Your task to perform on an android device: Show me productivity apps on the Play Store Image 0: 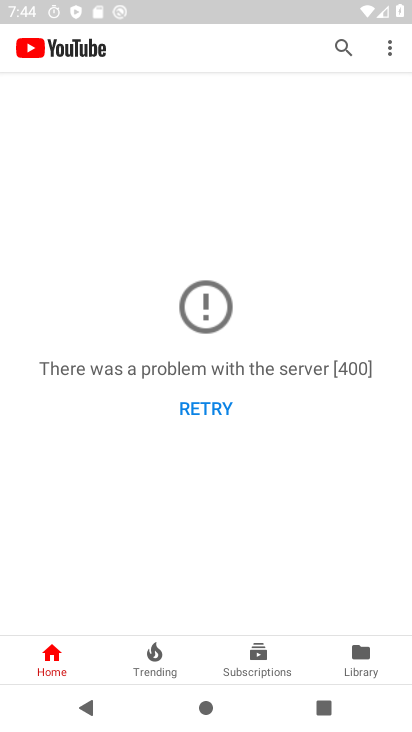
Step 0: press home button
Your task to perform on an android device: Show me productivity apps on the Play Store Image 1: 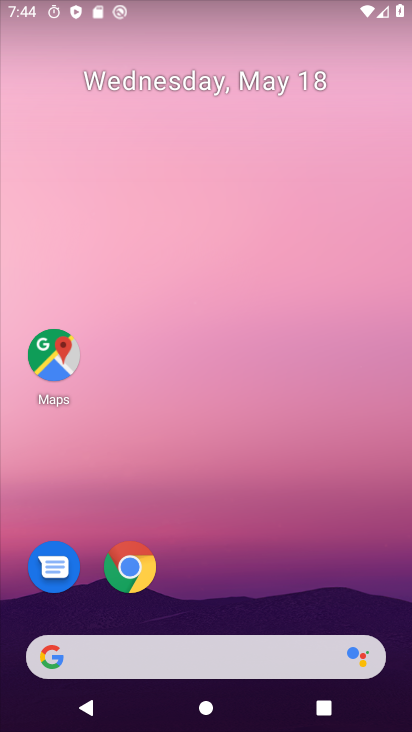
Step 1: drag from (182, 612) to (244, 20)
Your task to perform on an android device: Show me productivity apps on the Play Store Image 2: 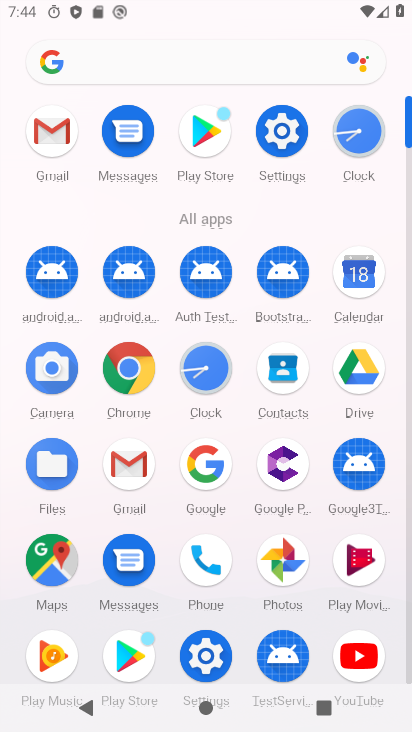
Step 2: click (137, 669)
Your task to perform on an android device: Show me productivity apps on the Play Store Image 3: 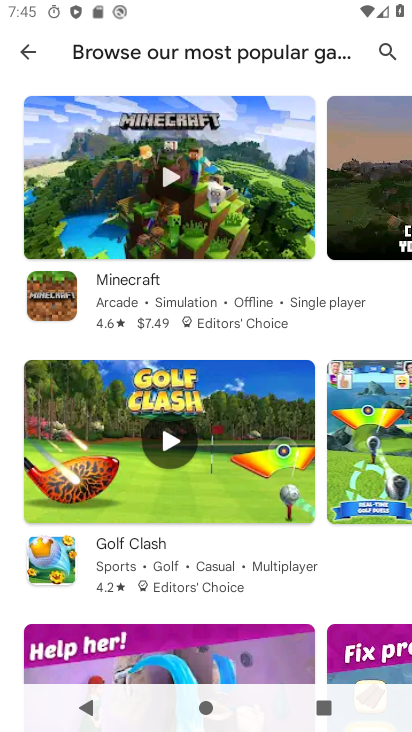
Step 3: click (13, 58)
Your task to perform on an android device: Show me productivity apps on the Play Store Image 4: 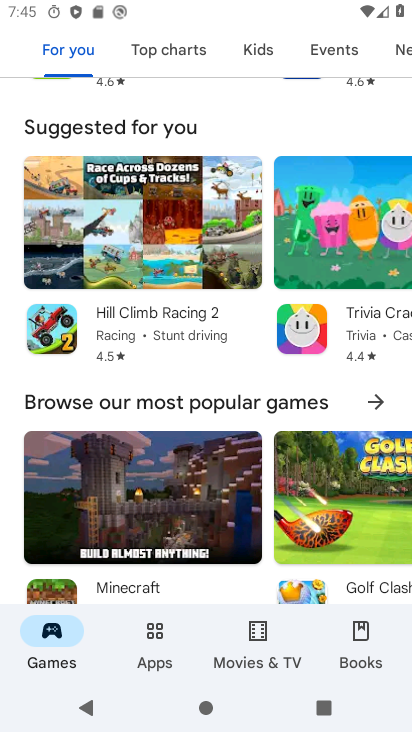
Step 4: click (152, 641)
Your task to perform on an android device: Show me productivity apps on the Play Store Image 5: 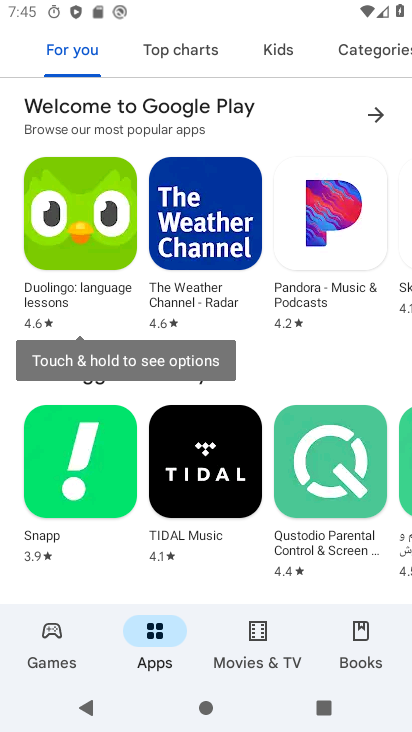
Step 5: click (343, 62)
Your task to perform on an android device: Show me productivity apps on the Play Store Image 6: 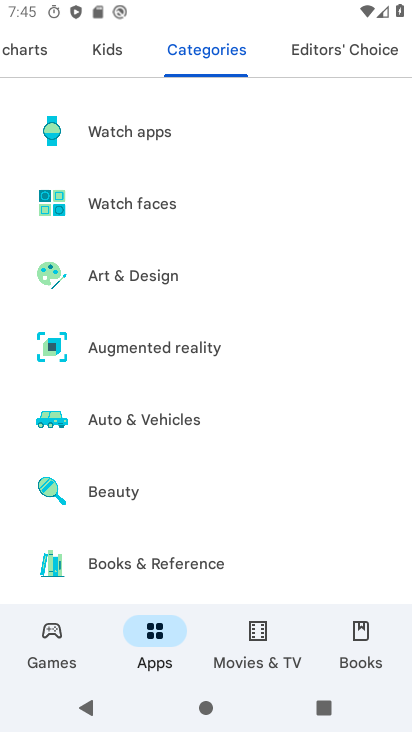
Step 6: drag from (268, 548) to (203, 38)
Your task to perform on an android device: Show me productivity apps on the Play Store Image 7: 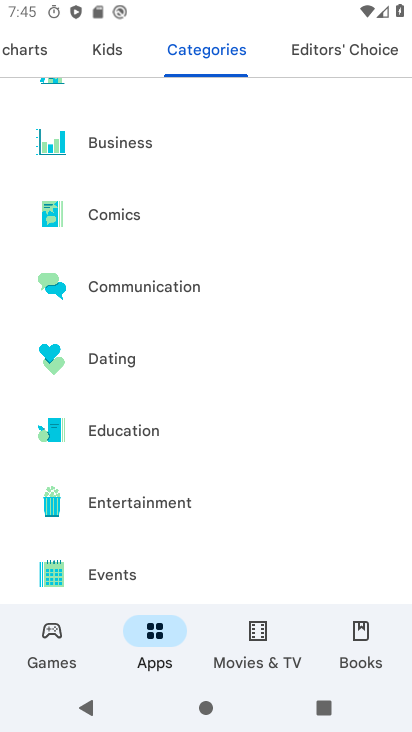
Step 7: drag from (172, 482) to (168, 81)
Your task to perform on an android device: Show me productivity apps on the Play Store Image 8: 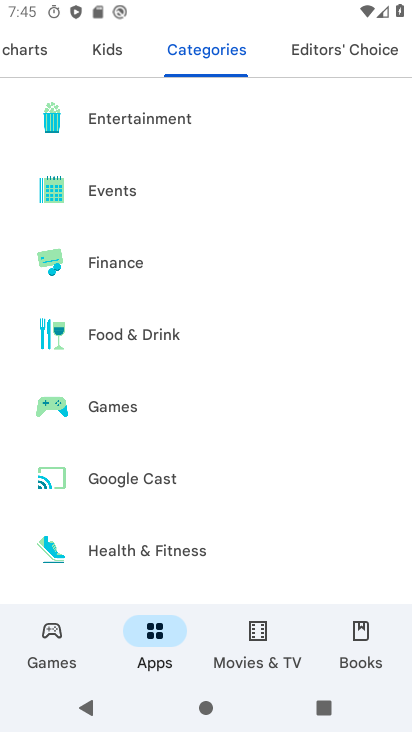
Step 8: drag from (132, 473) to (122, 77)
Your task to perform on an android device: Show me productivity apps on the Play Store Image 9: 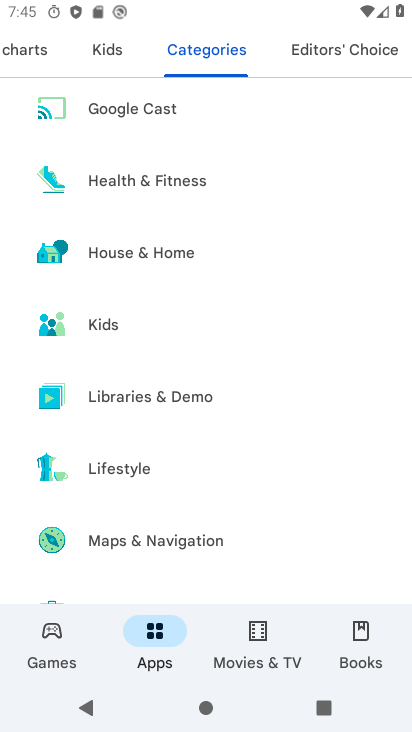
Step 9: drag from (133, 503) to (121, 95)
Your task to perform on an android device: Show me productivity apps on the Play Store Image 10: 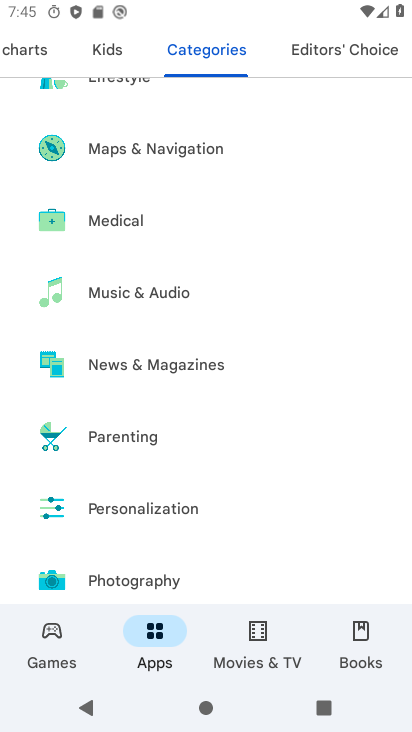
Step 10: drag from (155, 542) to (130, 262)
Your task to perform on an android device: Show me productivity apps on the Play Store Image 11: 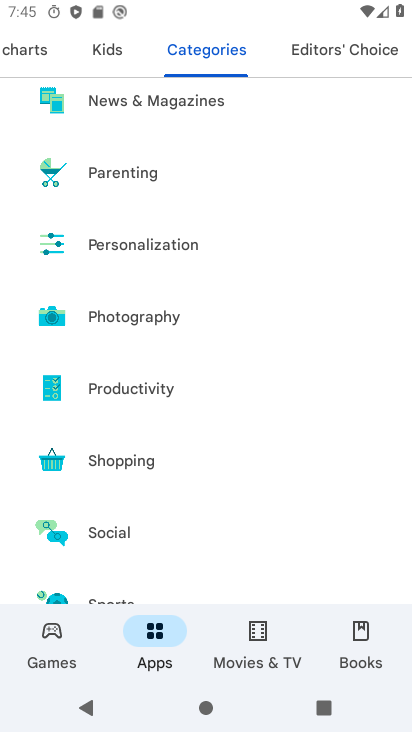
Step 11: click (132, 392)
Your task to perform on an android device: Show me productivity apps on the Play Store Image 12: 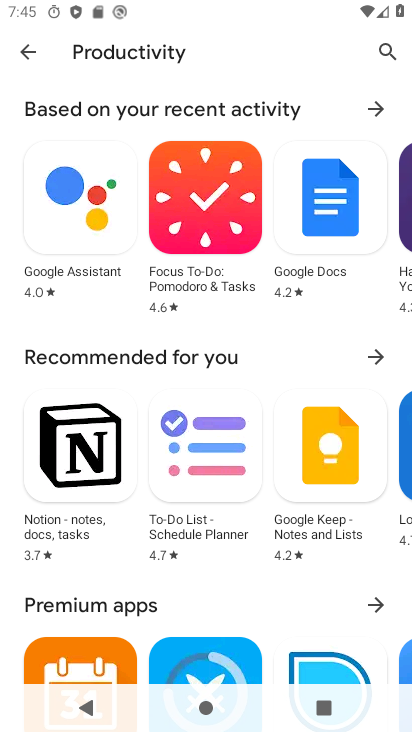
Step 12: task complete